Your task to perform on an android device: turn off wifi Image 0: 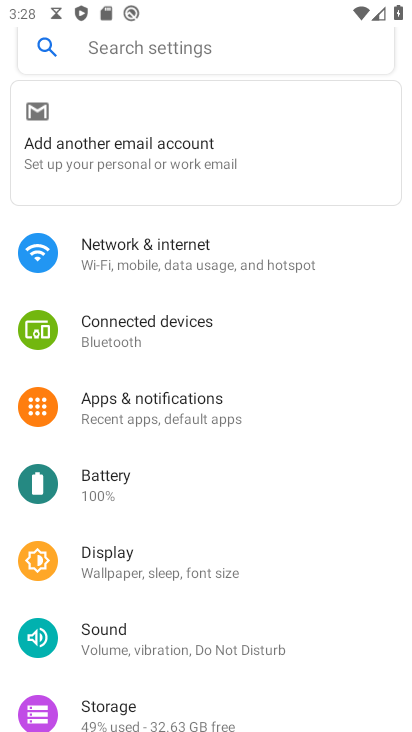
Step 0: press home button
Your task to perform on an android device: turn off wifi Image 1: 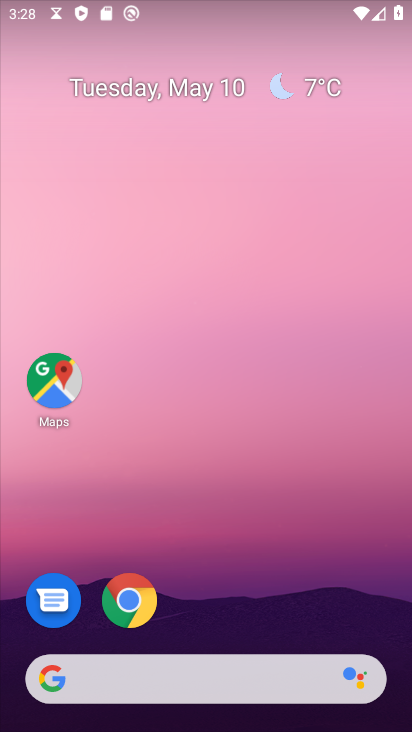
Step 1: drag from (149, 228) to (165, 528)
Your task to perform on an android device: turn off wifi Image 2: 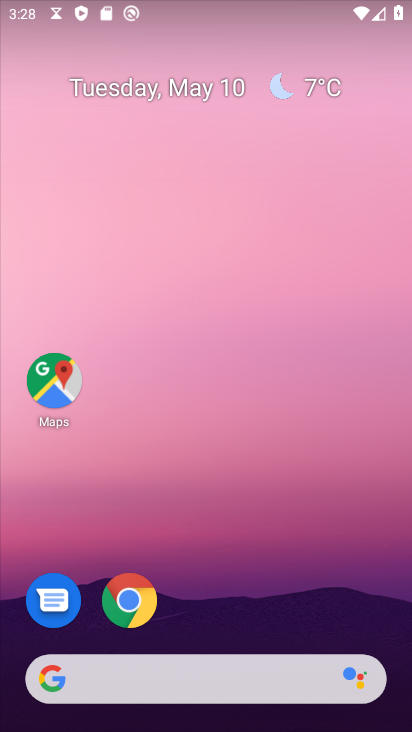
Step 2: drag from (214, 542) to (114, 13)
Your task to perform on an android device: turn off wifi Image 3: 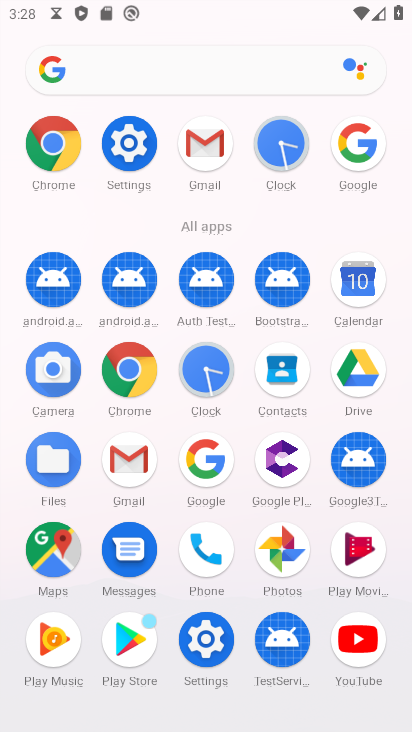
Step 3: click (114, 141)
Your task to perform on an android device: turn off wifi Image 4: 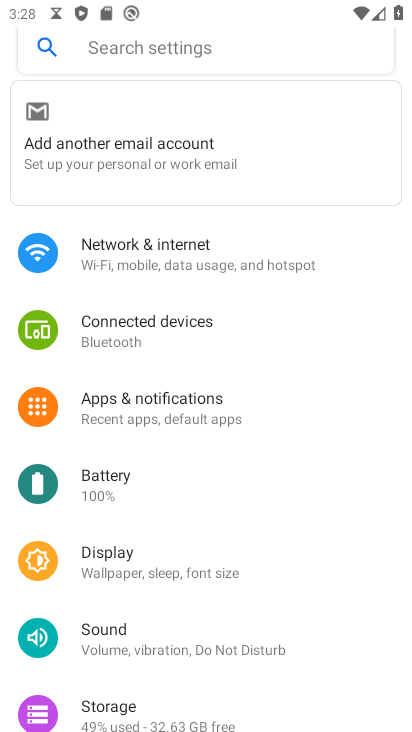
Step 4: drag from (141, 294) to (123, 613)
Your task to perform on an android device: turn off wifi Image 5: 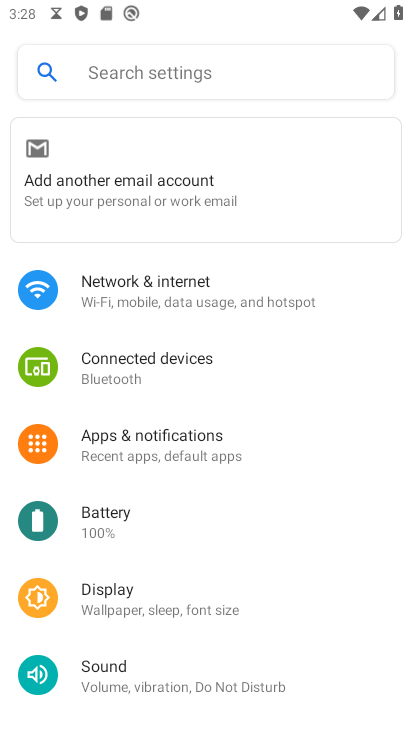
Step 5: click (114, 291)
Your task to perform on an android device: turn off wifi Image 6: 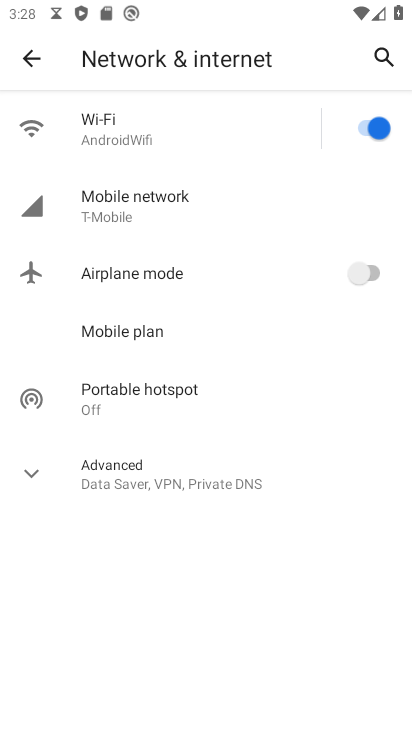
Step 6: click (345, 120)
Your task to perform on an android device: turn off wifi Image 7: 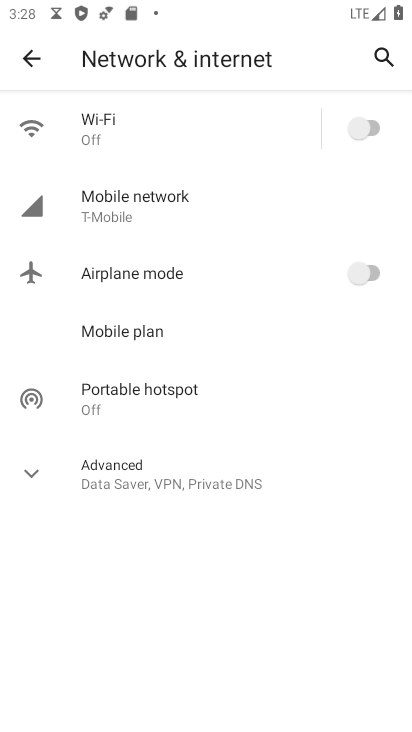
Step 7: task complete